Your task to perform on an android device: Do I have any events tomorrow? Image 0: 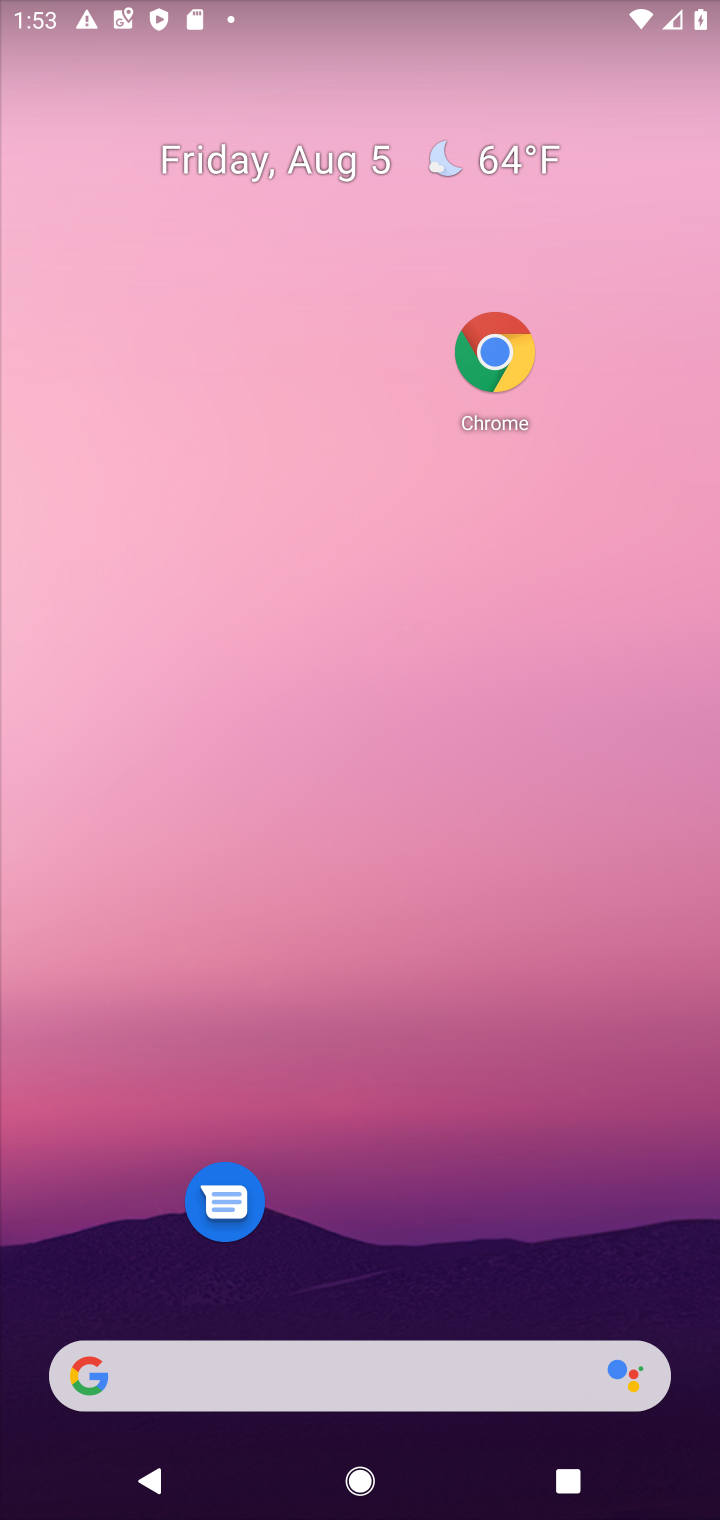
Step 0: press home button
Your task to perform on an android device: Do I have any events tomorrow? Image 1: 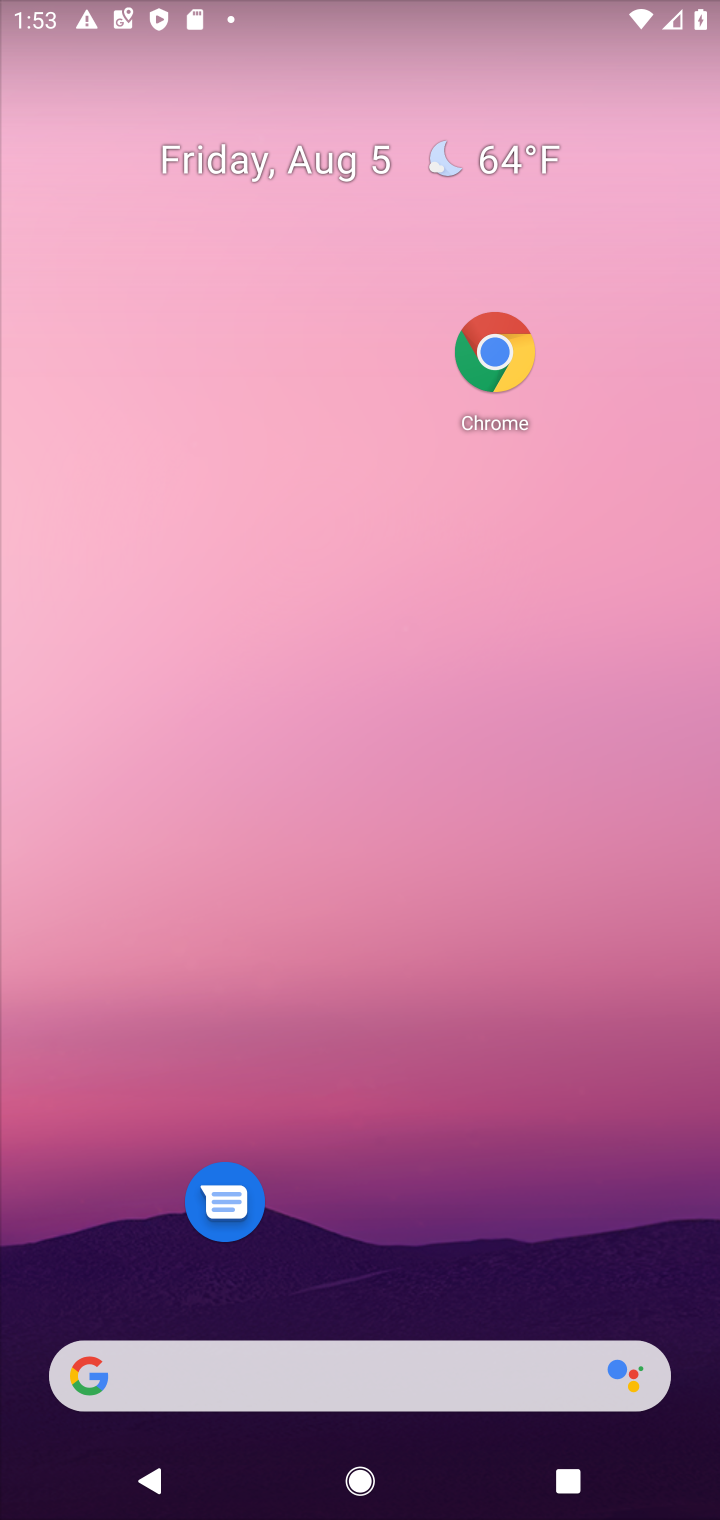
Step 1: drag from (573, 1246) to (472, 347)
Your task to perform on an android device: Do I have any events tomorrow? Image 2: 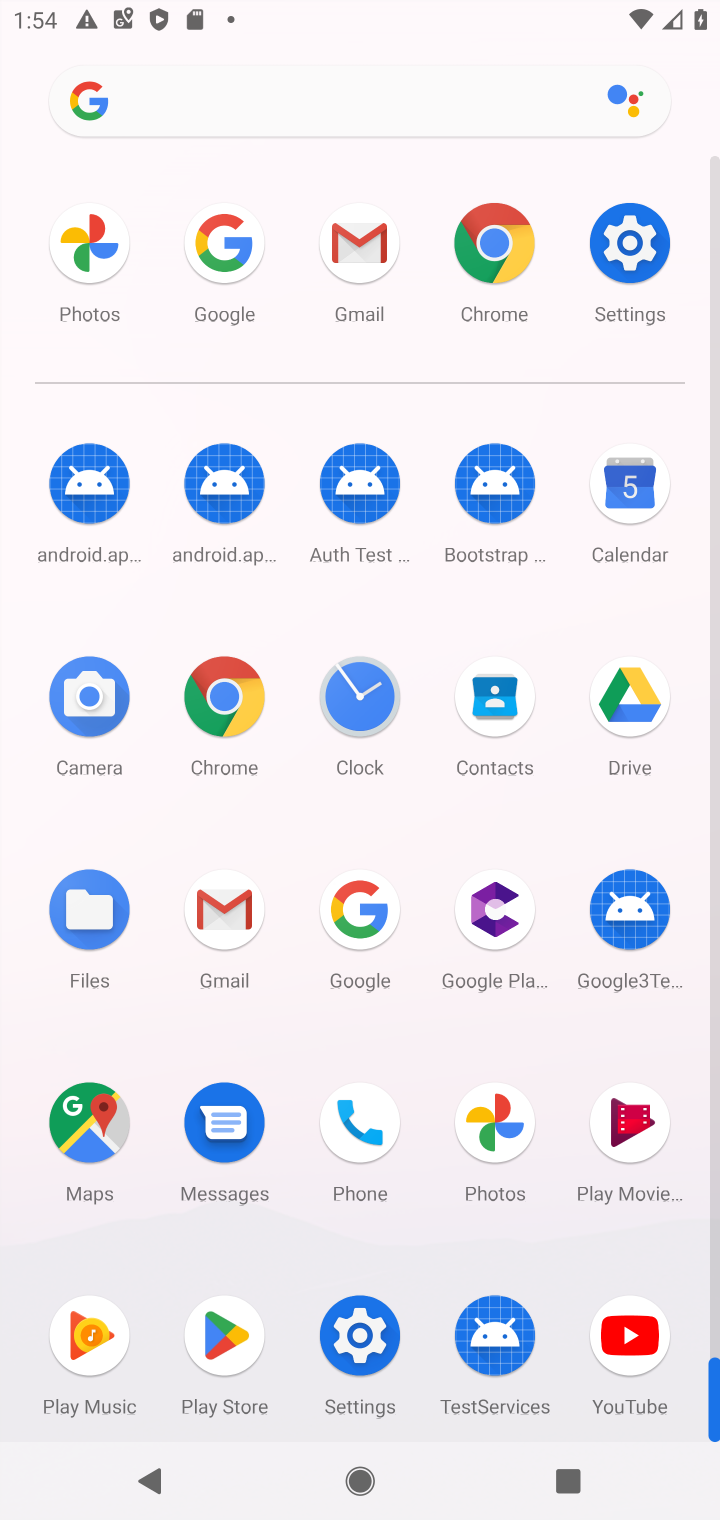
Step 2: click (621, 481)
Your task to perform on an android device: Do I have any events tomorrow? Image 3: 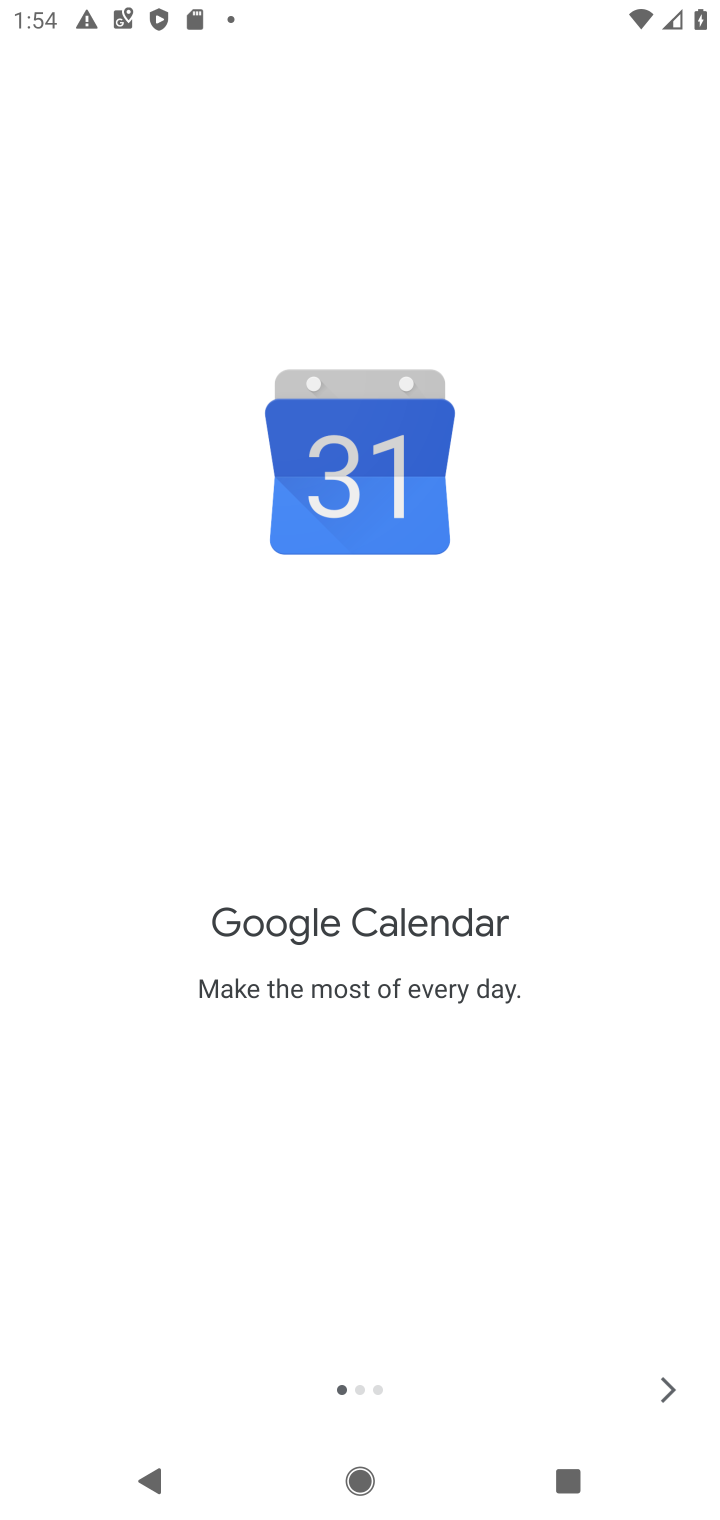
Step 3: click (665, 1372)
Your task to perform on an android device: Do I have any events tomorrow? Image 4: 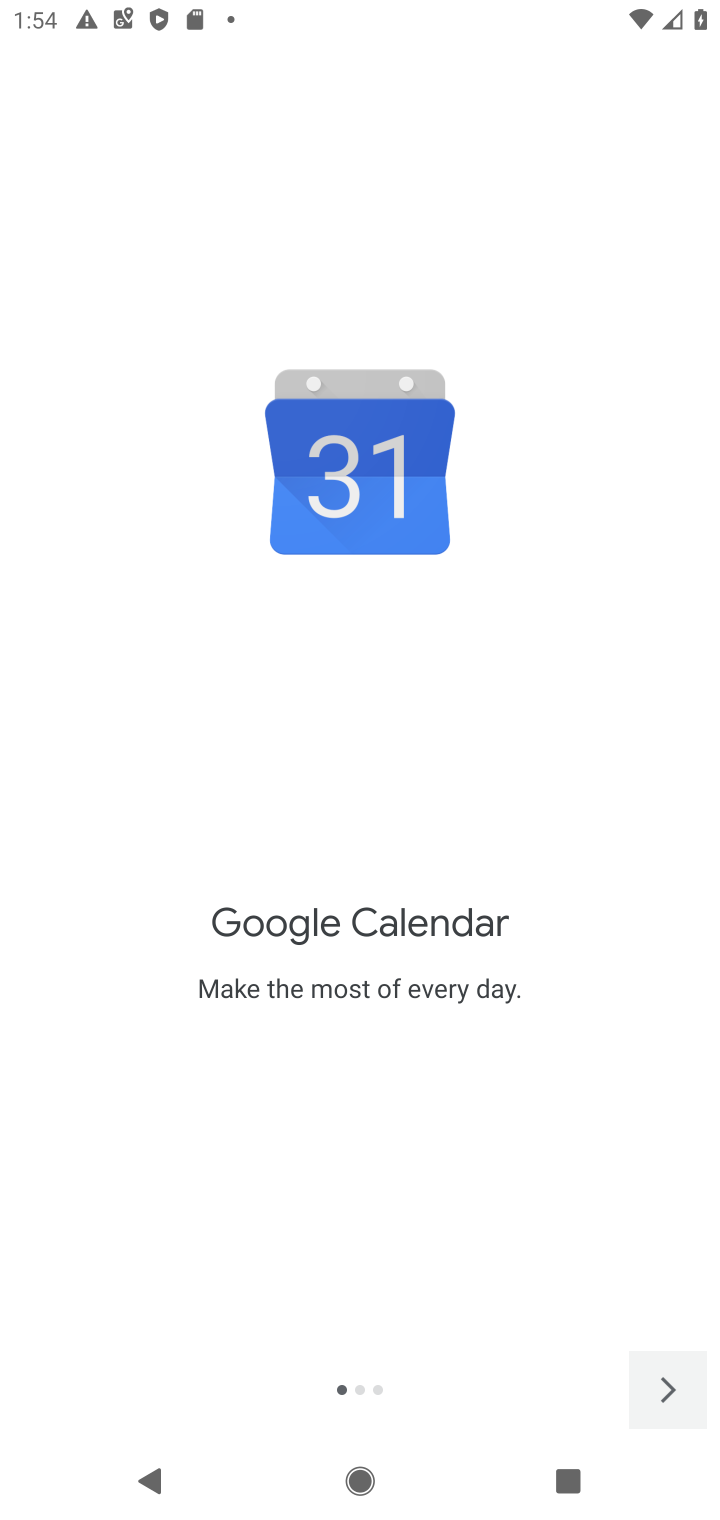
Step 4: click (665, 1372)
Your task to perform on an android device: Do I have any events tomorrow? Image 5: 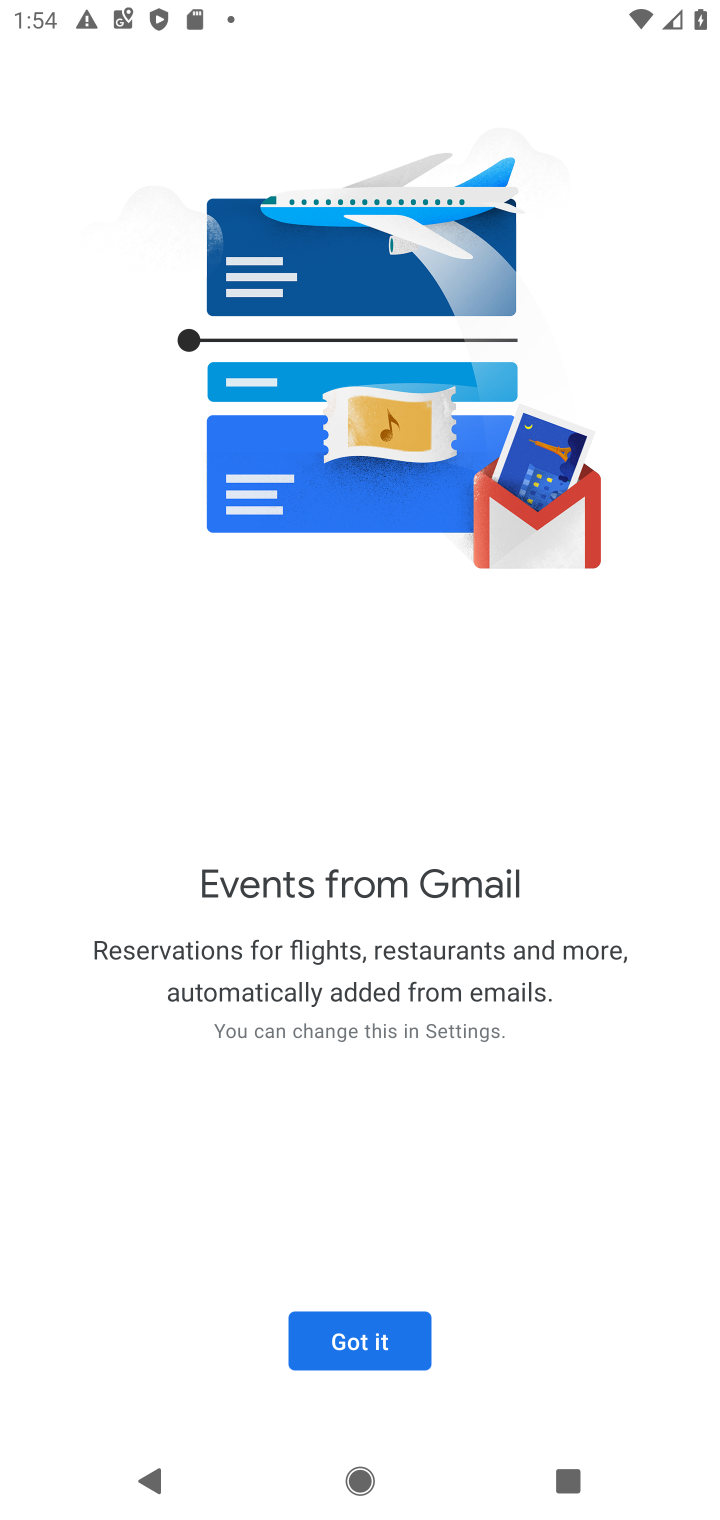
Step 5: click (665, 1372)
Your task to perform on an android device: Do I have any events tomorrow? Image 6: 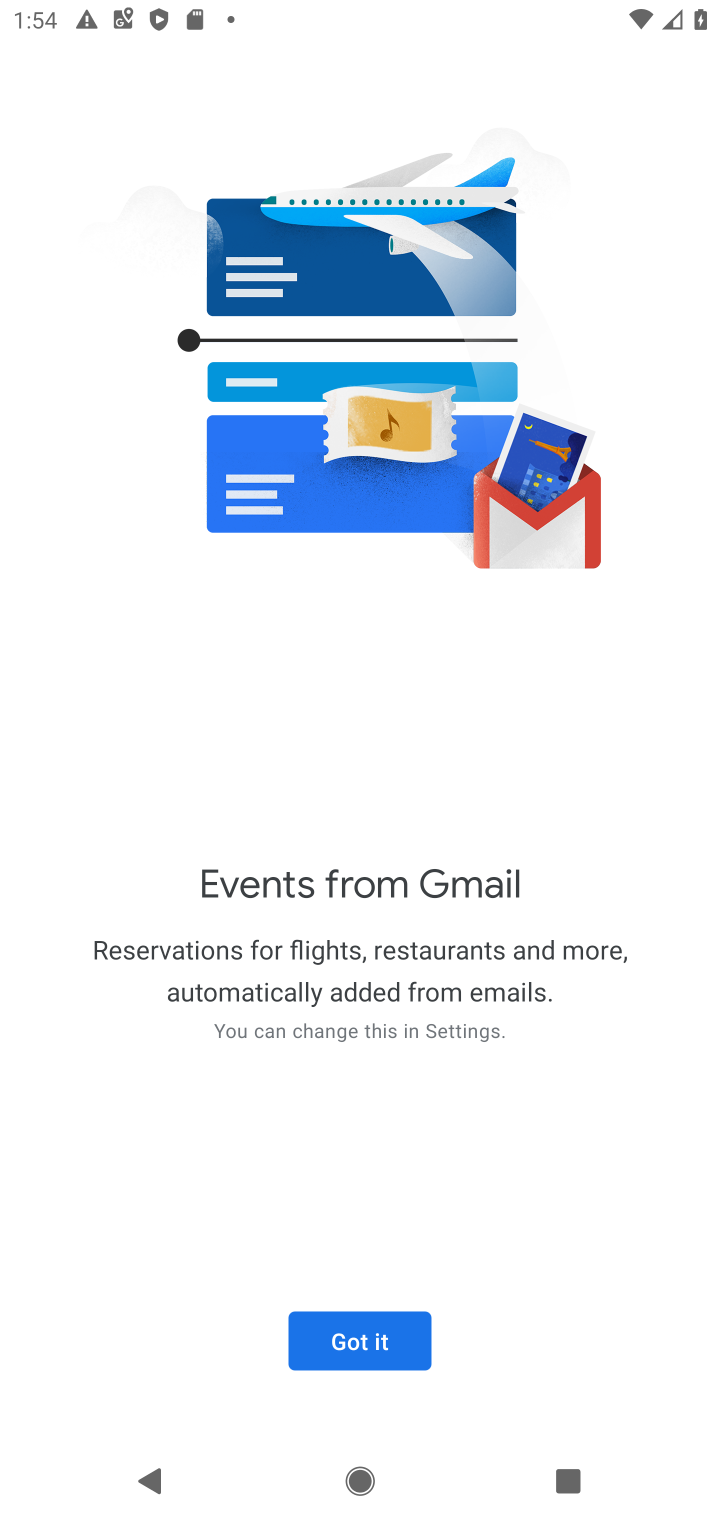
Step 6: click (365, 1328)
Your task to perform on an android device: Do I have any events tomorrow? Image 7: 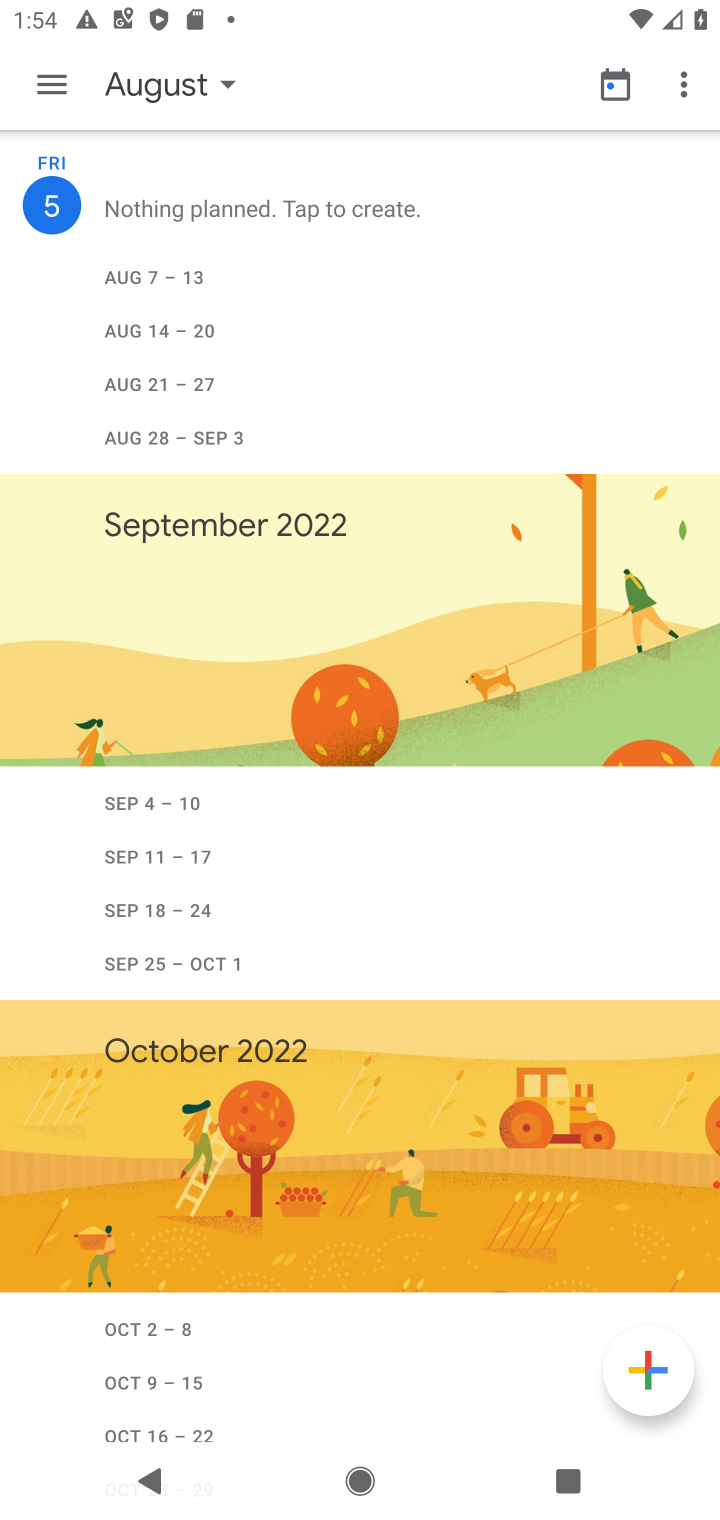
Step 7: click (69, 87)
Your task to perform on an android device: Do I have any events tomorrow? Image 8: 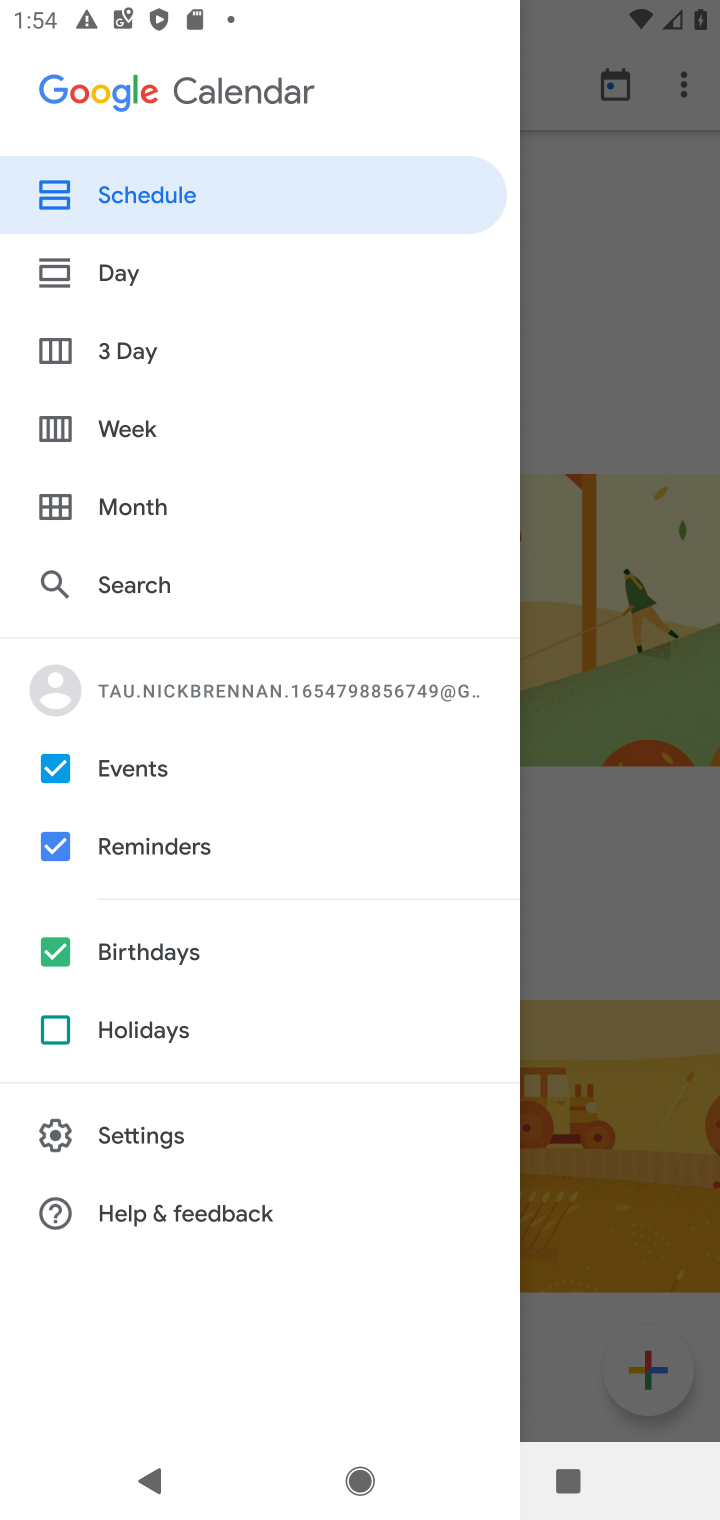
Step 8: click (116, 81)
Your task to perform on an android device: Do I have any events tomorrow? Image 9: 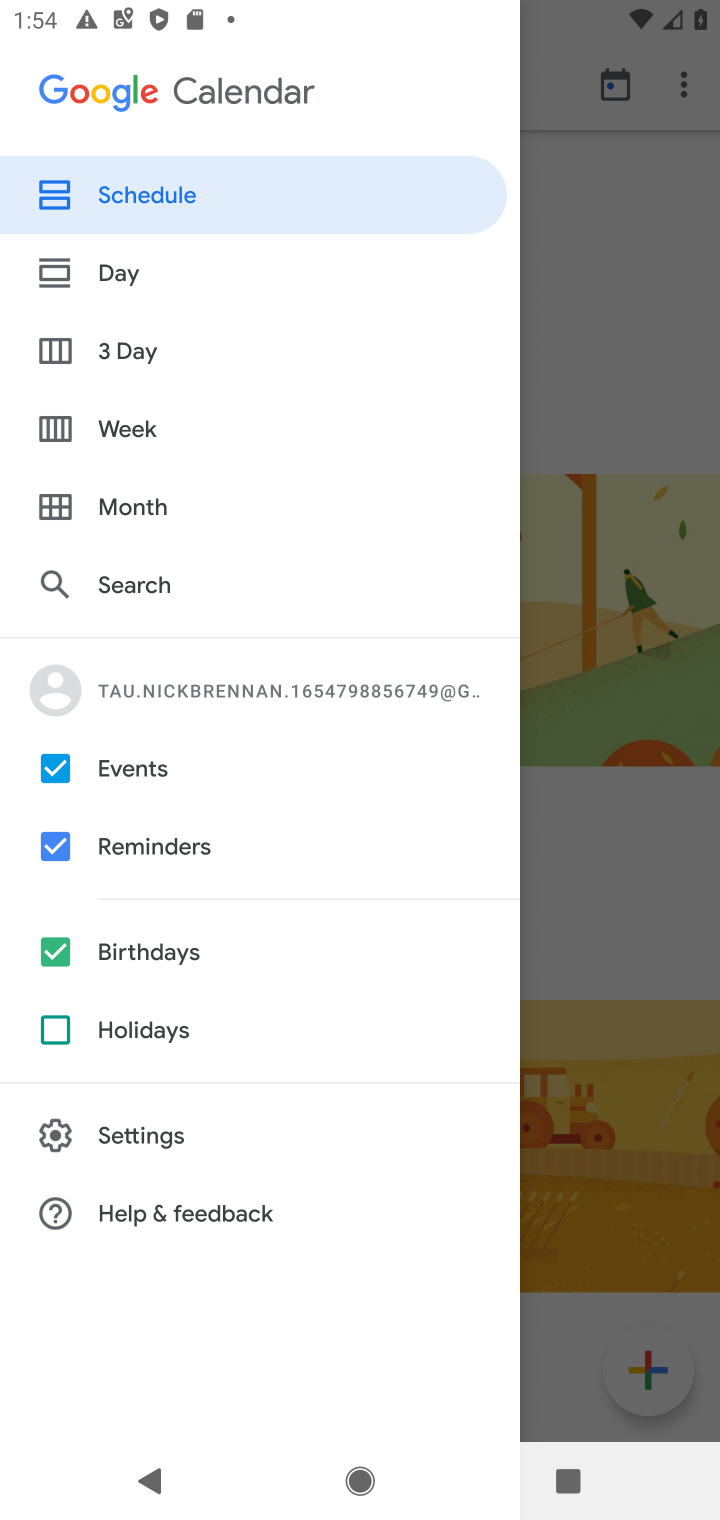
Step 9: click (556, 232)
Your task to perform on an android device: Do I have any events tomorrow? Image 10: 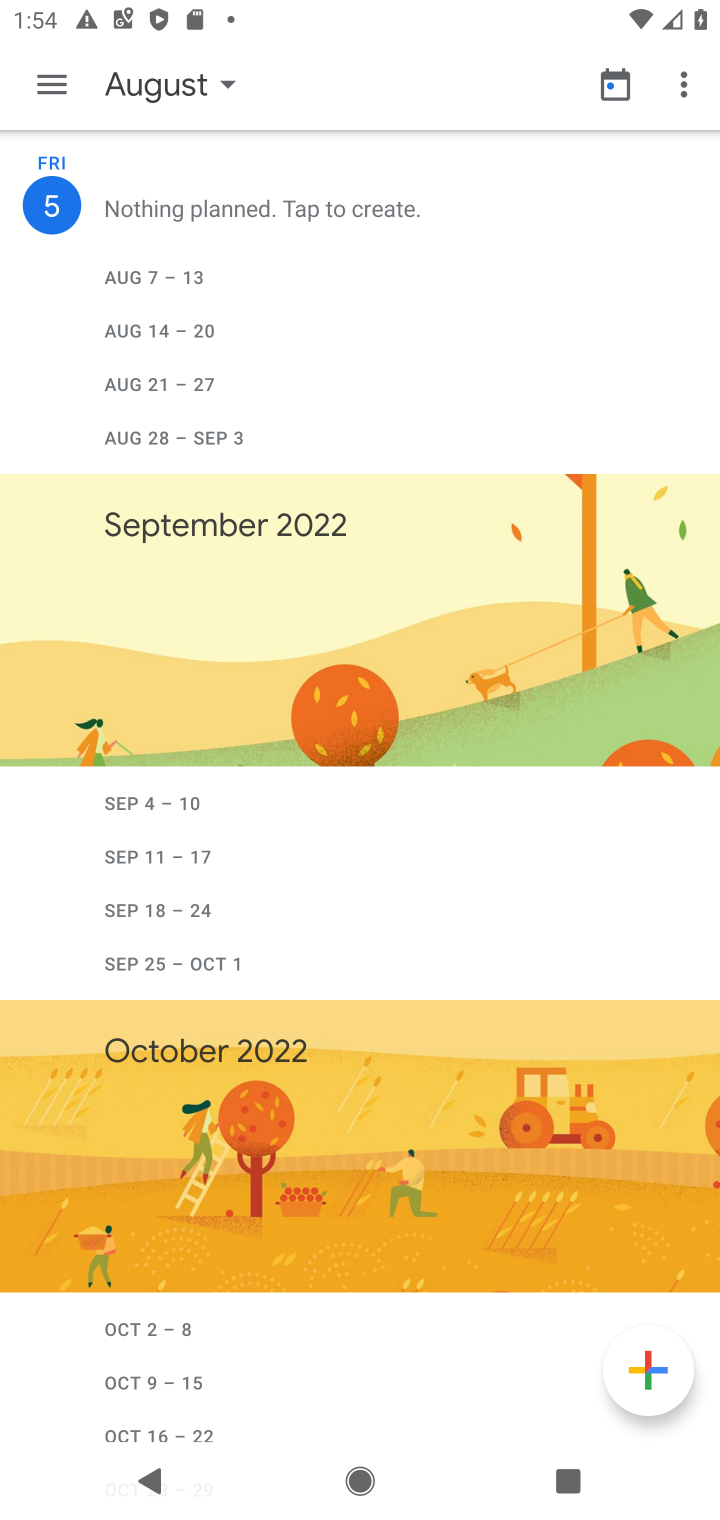
Step 10: click (152, 86)
Your task to perform on an android device: Do I have any events tomorrow? Image 11: 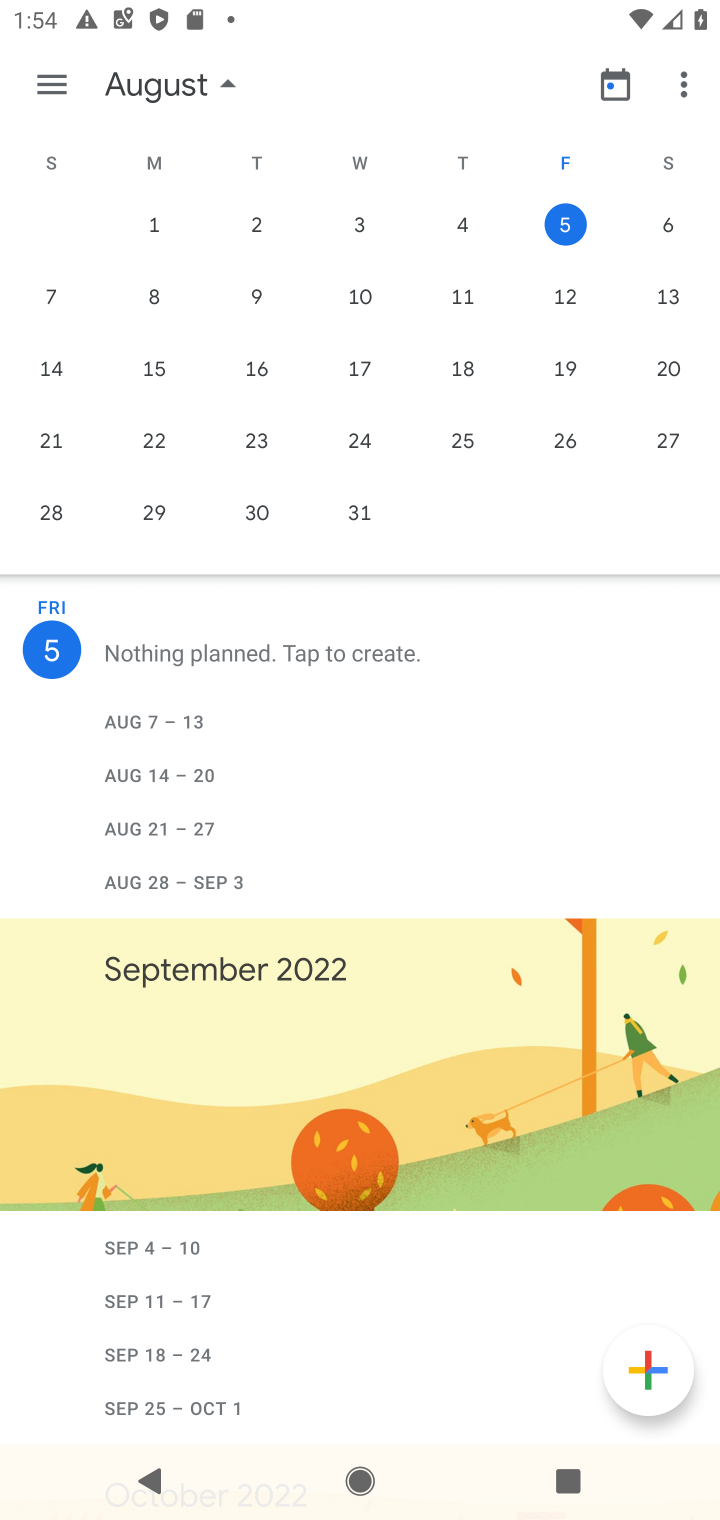
Step 11: click (669, 205)
Your task to perform on an android device: Do I have any events tomorrow? Image 12: 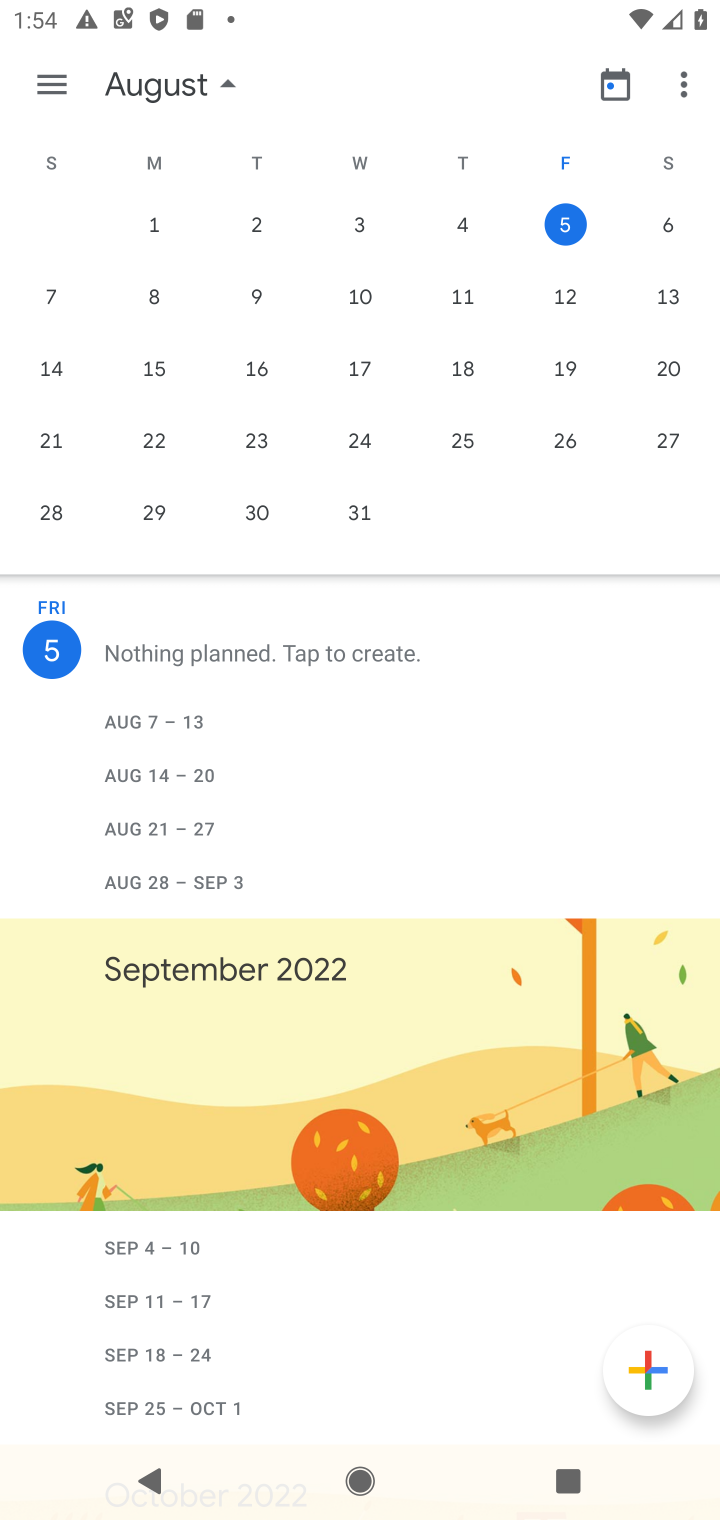
Step 12: click (665, 220)
Your task to perform on an android device: Do I have any events tomorrow? Image 13: 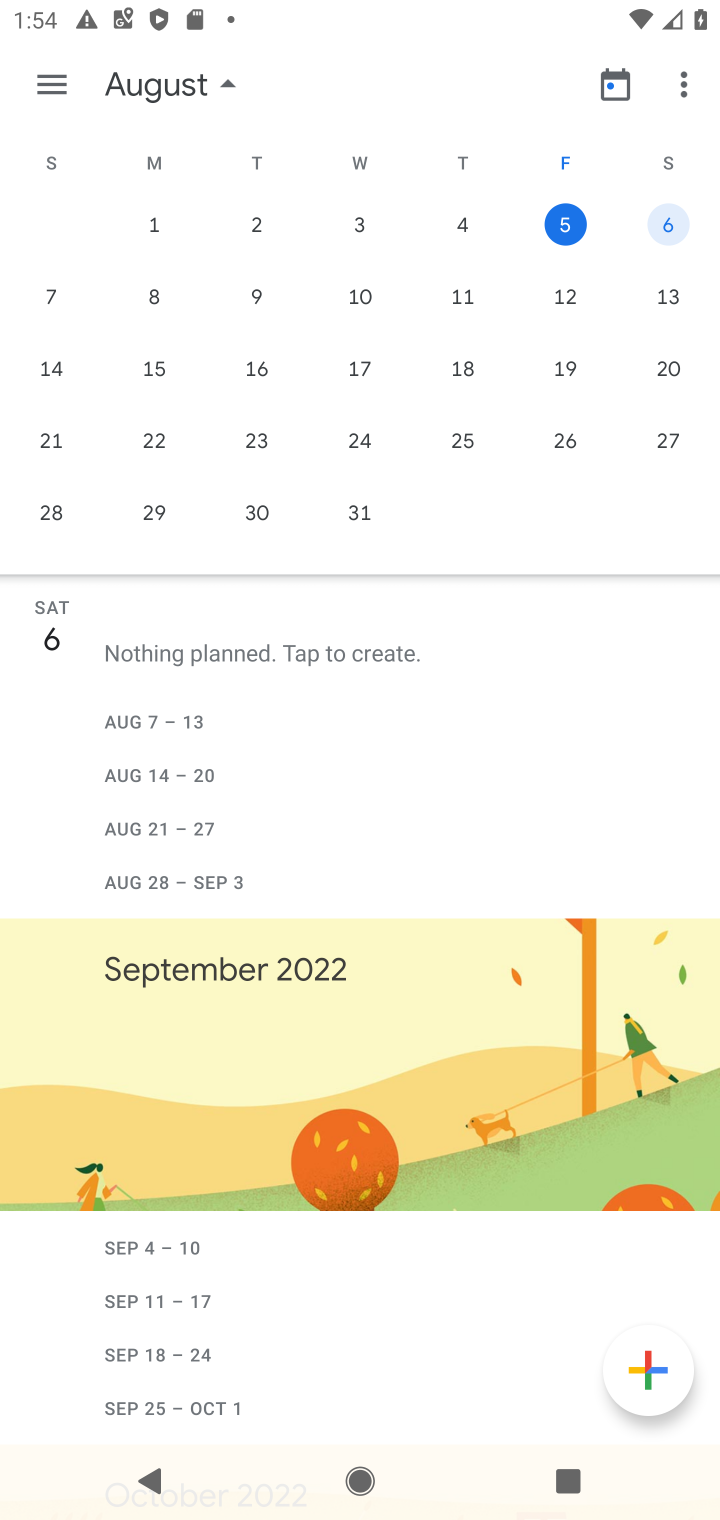
Step 13: click (663, 232)
Your task to perform on an android device: Do I have any events tomorrow? Image 14: 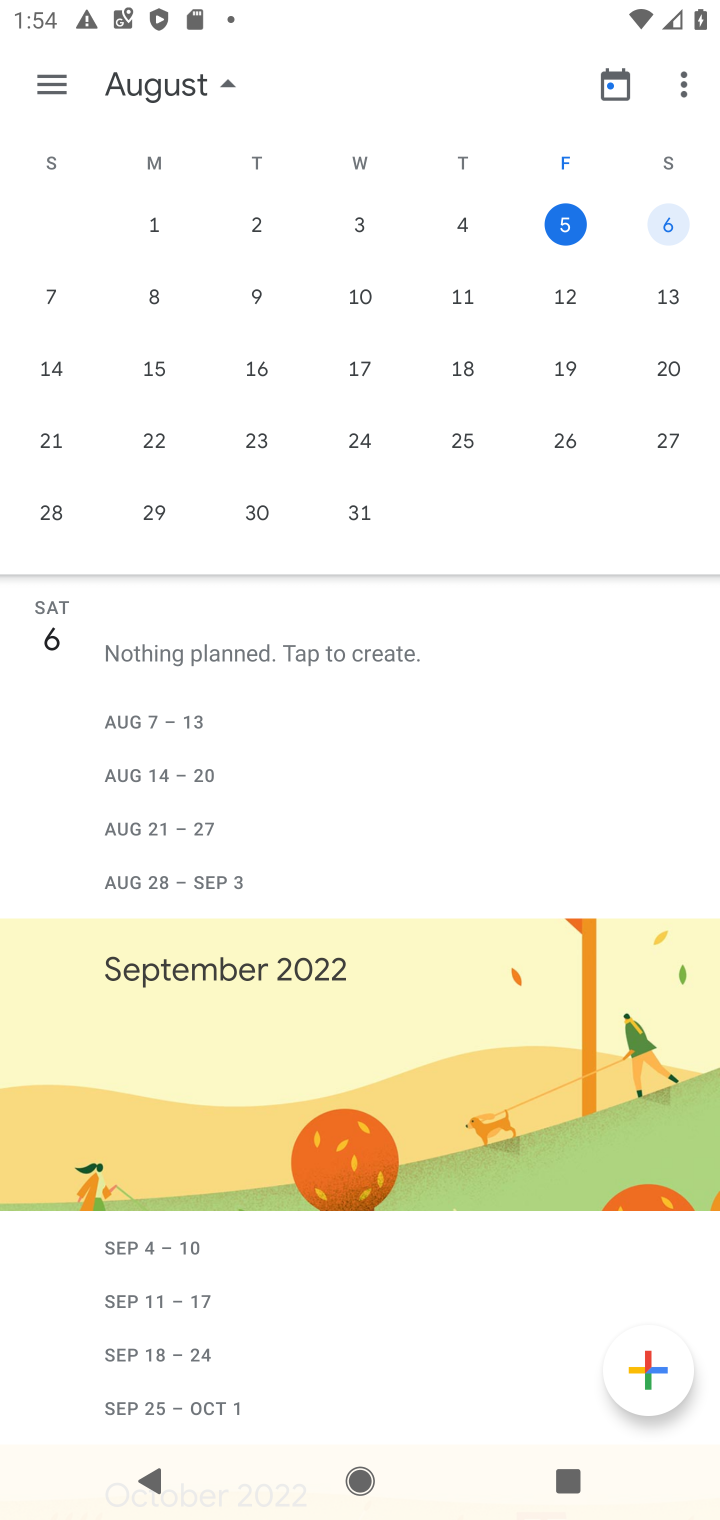
Step 14: task complete